Your task to perform on an android device: toggle airplane mode Image 0: 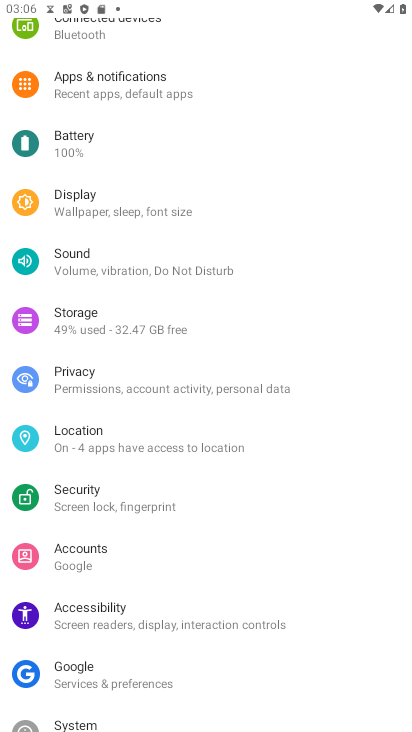
Step 0: drag from (149, 484) to (164, 221)
Your task to perform on an android device: toggle airplane mode Image 1: 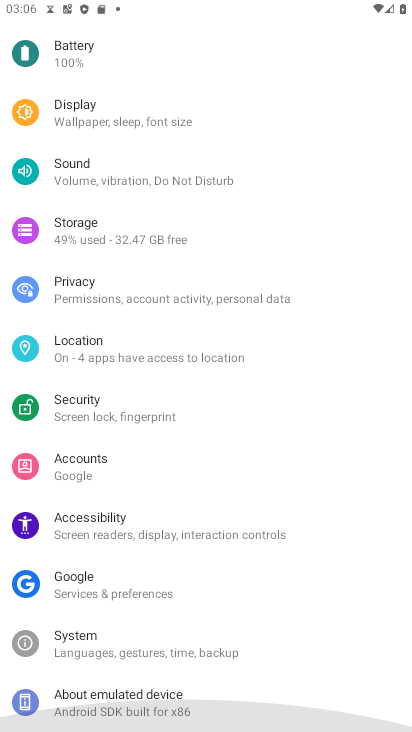
Step 1: drag from (199, 549) to (171, 305)
Your task to perform on an android device: toggle airplane mode Image 2: 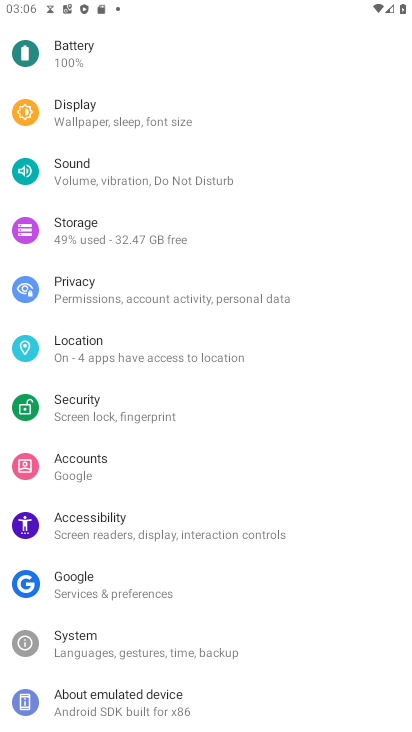
Step 2: drag from (98, 207) to (131, 408)
Your task to perform on an android device: toggle airplane mode Image 3: 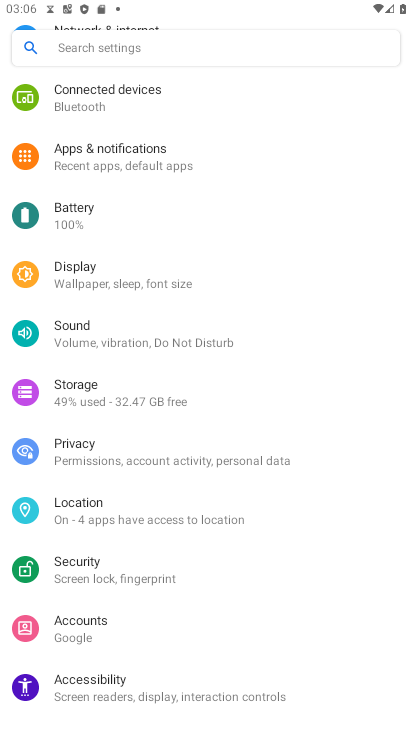
Step 3: drag from (55, 217) to (152, 435)
Your task to perform on an android device: toggle airplane mode Image 4: 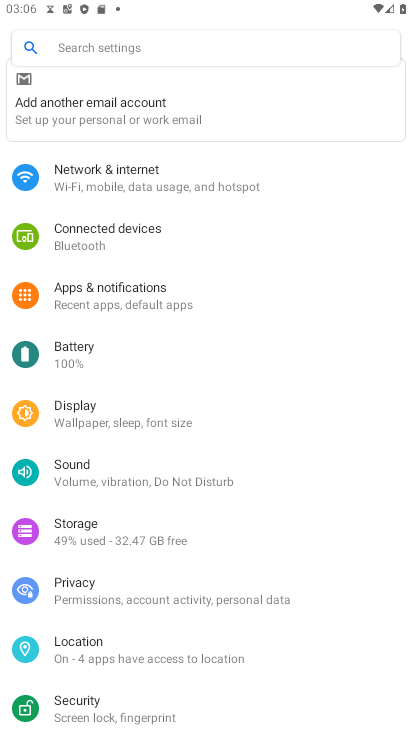
Step 4: drag from (79, 200) to (75, 565)
Your task to perform on an android device: toggle airplane mode Image 5: 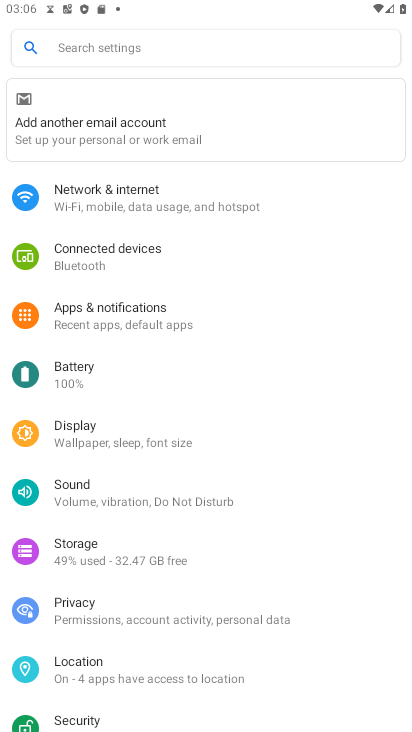
Step 5: click (90, 204)
Your task to perform on an android device: toggle airplane mode Image 6: 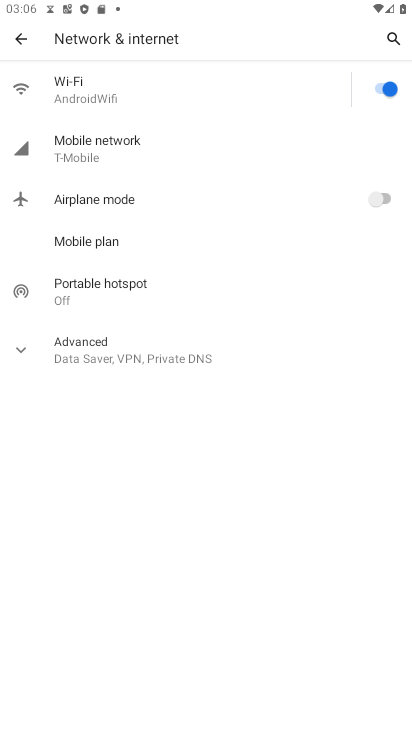
Step 6: click (379, 204)
Your task to perform on an android device: toggle airplane mode Image 7: 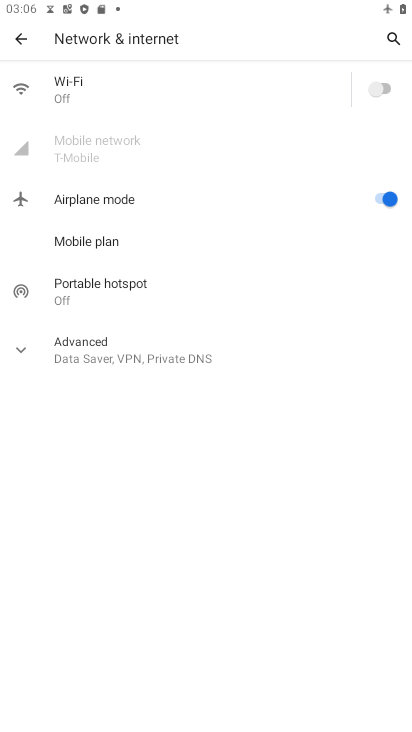
Step 7: task complete